Your task to perform on an android device: toggle airplane mode Image 0: 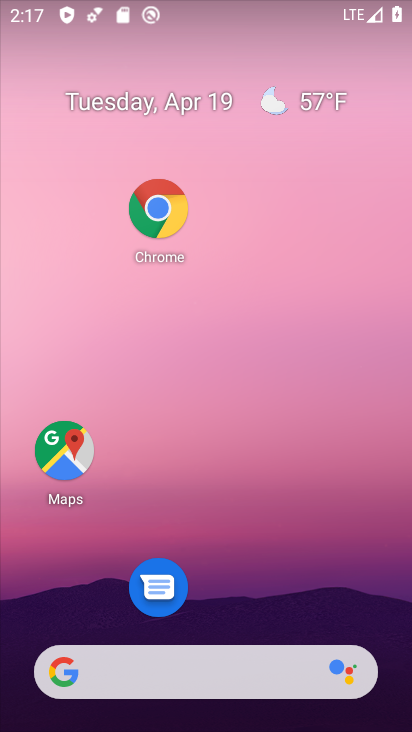
Step 0: drag from (333, 624) to (211, 286)
Your task to perform on an android device: toggle airplane mode Image 1: 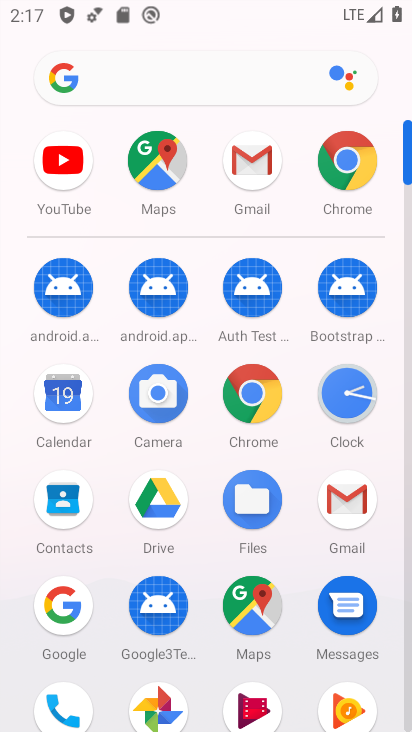
Step 1: drag from (392, 549) to (395, 359)
Your task to perform on an android device: toggle airplane mode Image 2: 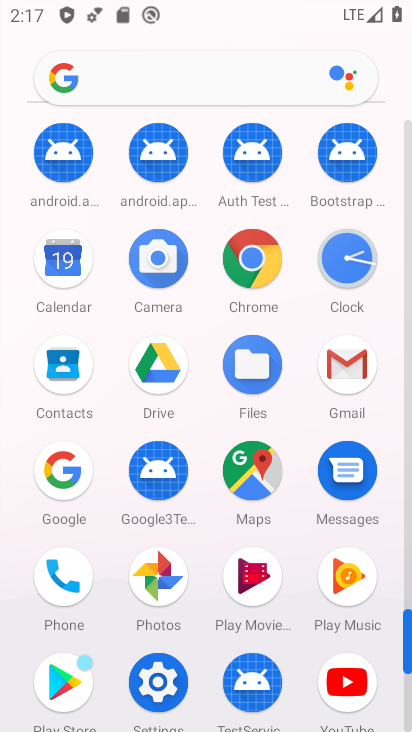
Step 2: click (158, 671)
Your task to perform on an android device: toggle airplane mode Image 3: 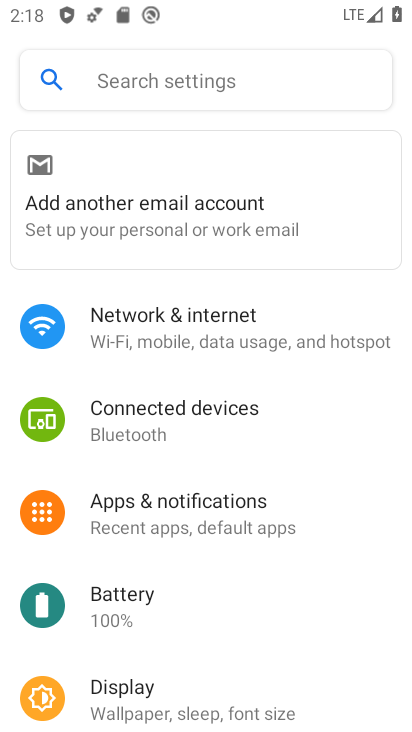
Step 3: drag from (212, 634) to (202, 291)
Your task to perform on an android device: toggle airplane mode Image 4: 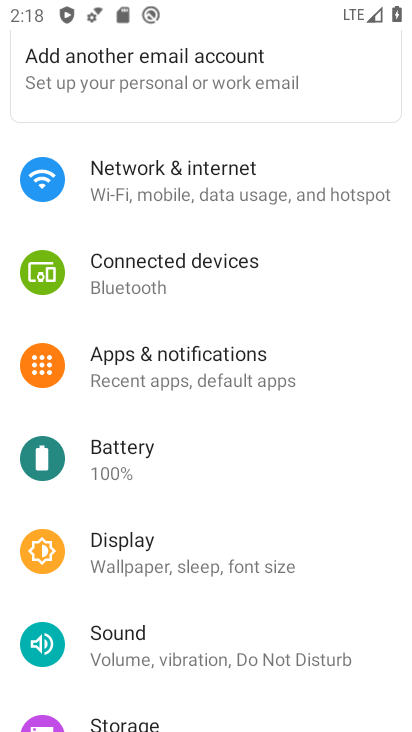
Step 4: click (170, 193)
Your task to perform on an android device: toggle airplane mode Image 5: 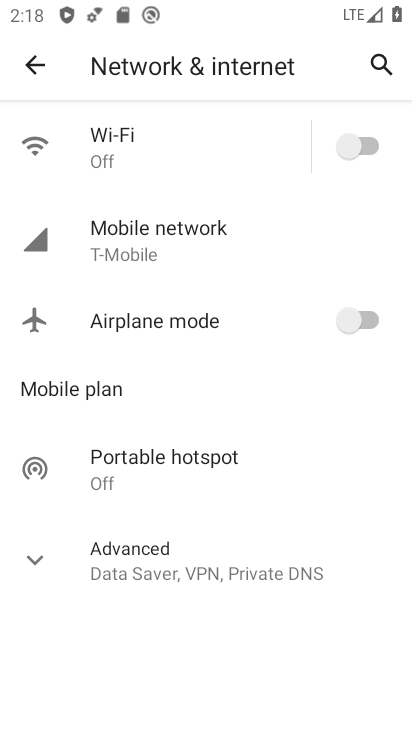
Step 5: click (357, 320)
Your task to perform on an android device: toggle airplane mode Image 6: 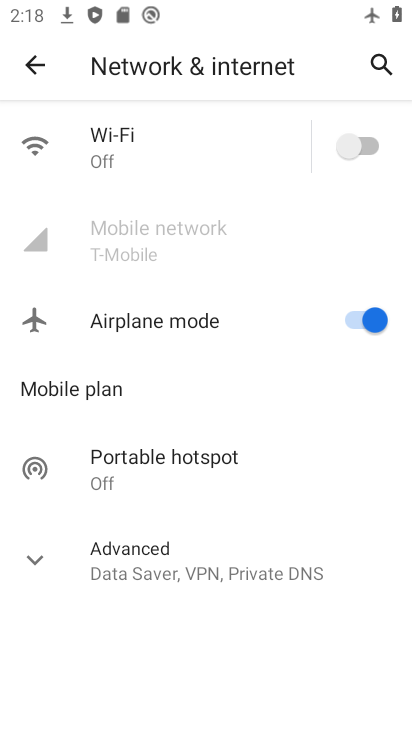
Step 6: task complete